Your task to perform on an android device: open the mobile data screen to see how much data has been used Image 0: 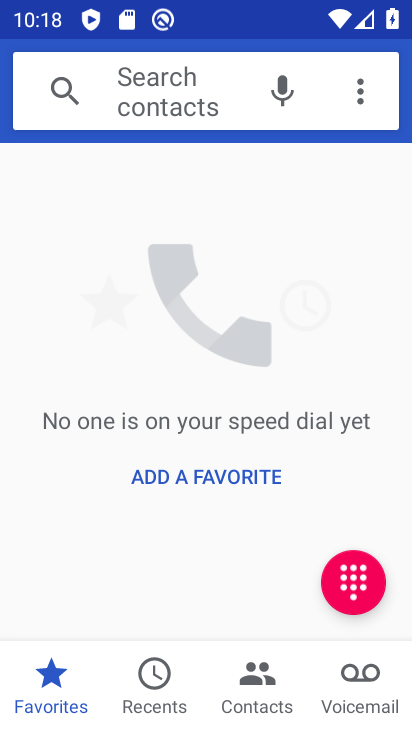
Step 0: press home button
Your task to perform on an android device: open the mobile data screen to see how much data has been used Image 1: 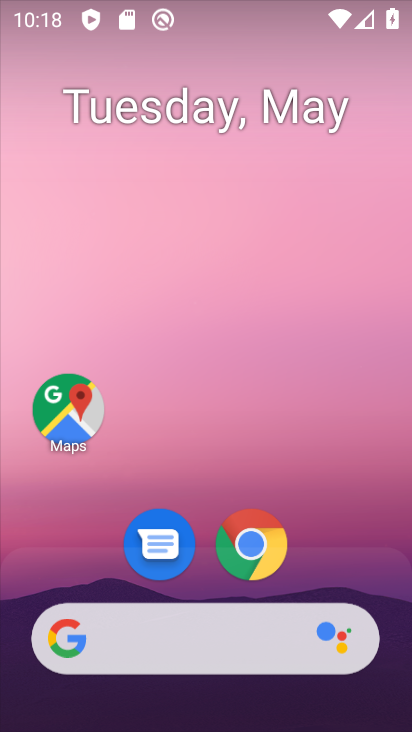
Step 1: drag from (355, 591) to (267, 124)
Your task to perform on an android device: open the mobile data screen to see how much data has been used Image 2: 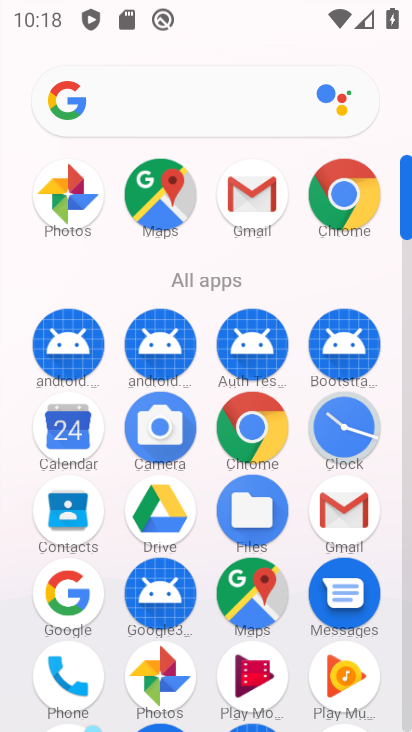
Step 2: click (409, 618)
Your task to perform on an android device: open the mobile data screen to see how much data has been used Image 3: 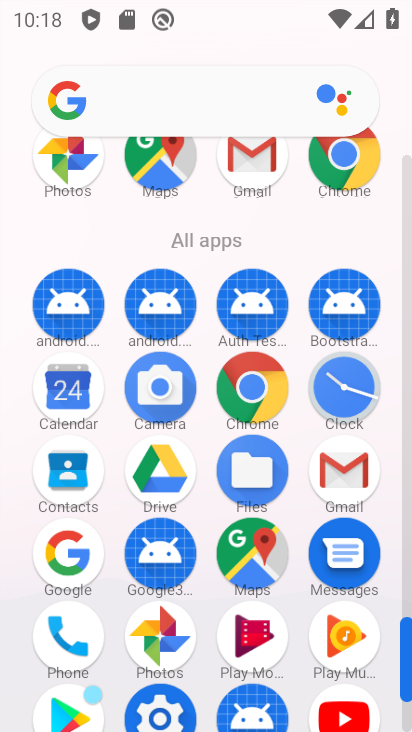
Step 3: click (166, 711)
Your task to perform on an android device: open the mobile data screen to see how much data has been used Image 4: 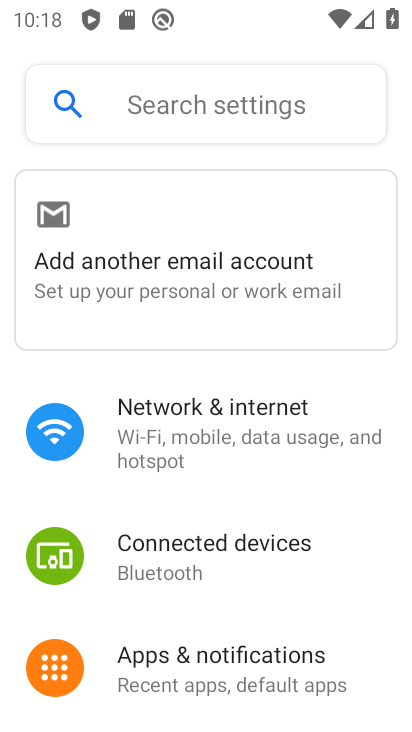
Step 4: click (225, 425)
Your task to perform on an android device: open the mobile data screen to see how much data has been used Image 5: 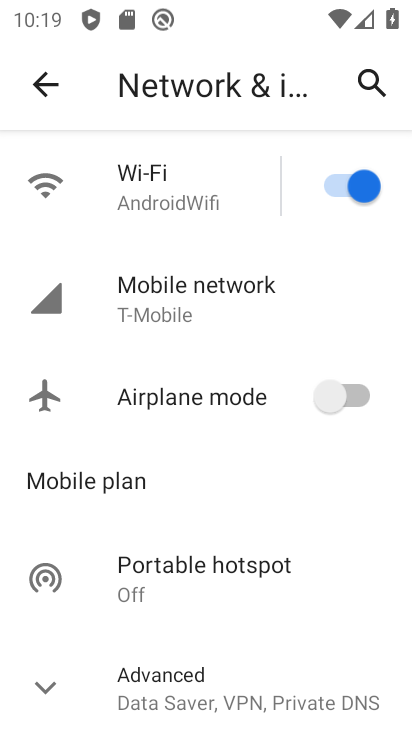
Step 5: click (234, 327)
Your task to perform on an android device: open the mobile data screen to see how much data has been used Image 6: 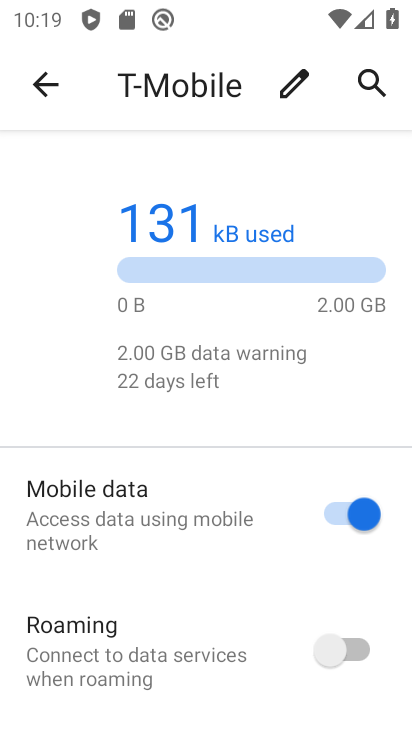
Step 6: task complete